Your task to perform on an android device: toggle notifications settings in the gmail app Image 0: 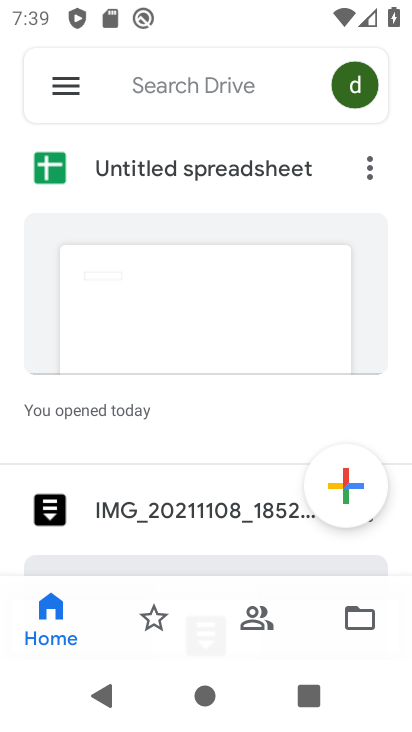
Step 0: press home button
Your task to perform on an android device: toggle notifications settings in the gmail app Image 1: 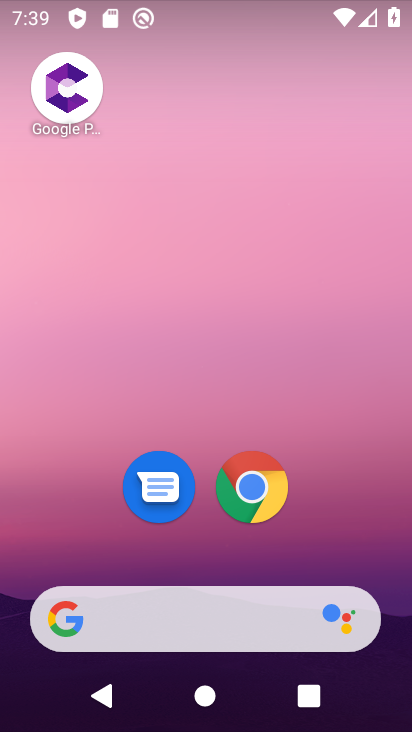
Step 1: drag from (319, 548) to (330, 278)
Your task to perform on an android device: toggle notifications settings in the gmail app Image 2: 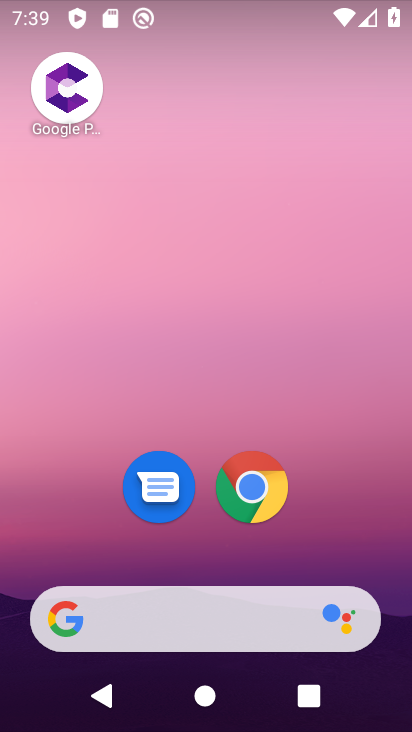
Step 2: drag from (281, 582) to (276, 238)
Your task to perform on an android device: toggle notifications settings in the gmail app Image 3: 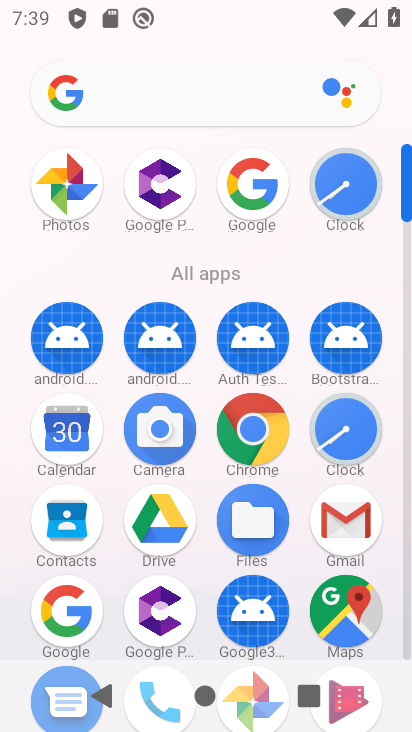
Step 3: drag from (210, 609) to (209, 278)
Your task to perform on an android device: toggle notifications settings in the gmail app Image 4: 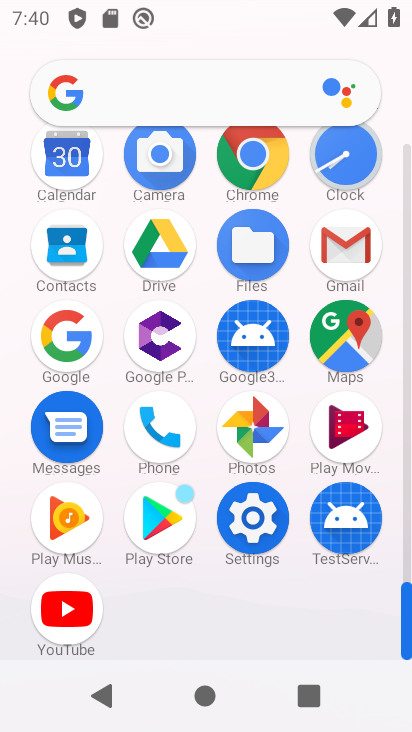
Step 4: click (261, 512)
Your task to perform on an android device: toggle notifications settings in the gmail app Image 5: 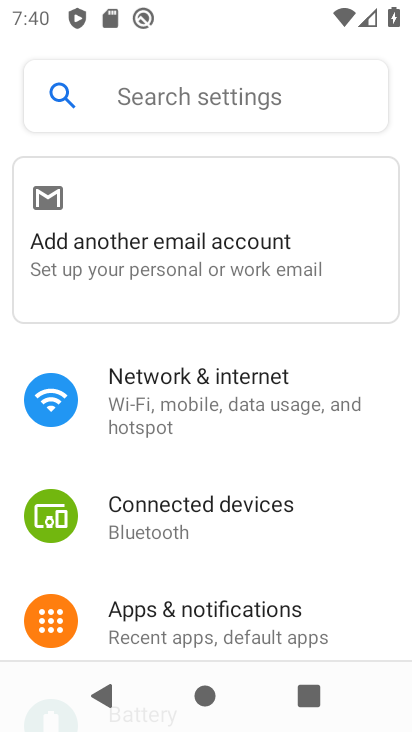
Step 5: press home button
Your task to perform on an android device: toggle notifications settings in the gmail app Image 6: 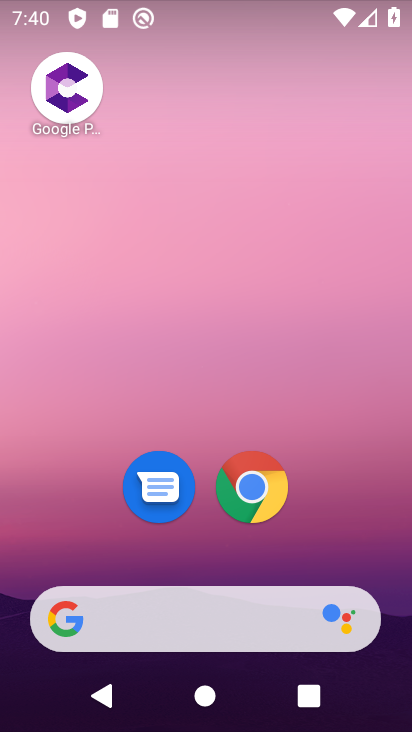
Step 6: drag from (264, 570) to (258, 244)
Your task to perform on an android device: toggle notifications settings in the gmail app Image 7: 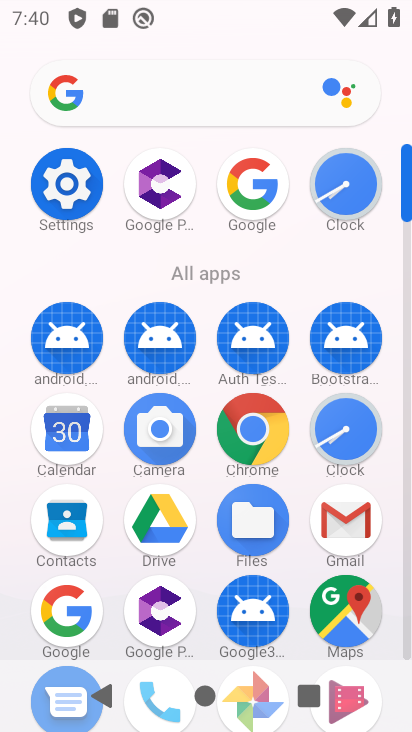
Step 7: click (347, 509)
Your task to perform on an android device: toggle notifications settings in the gmail app Image 8: 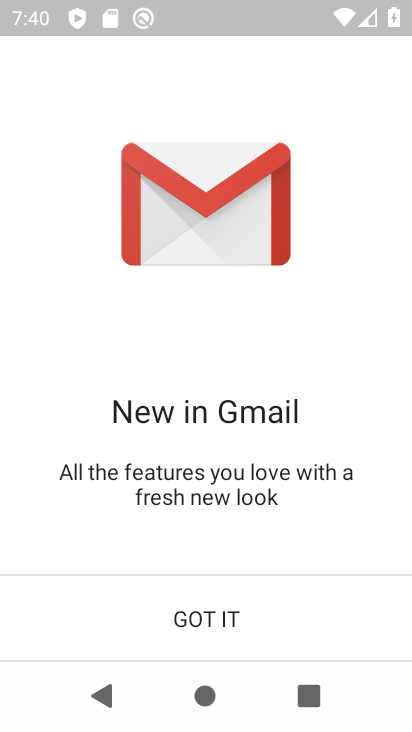
Step 8: click (231, 613)
Your task to perform on an android device: toggle notifications settings in the gmail app Image 9: 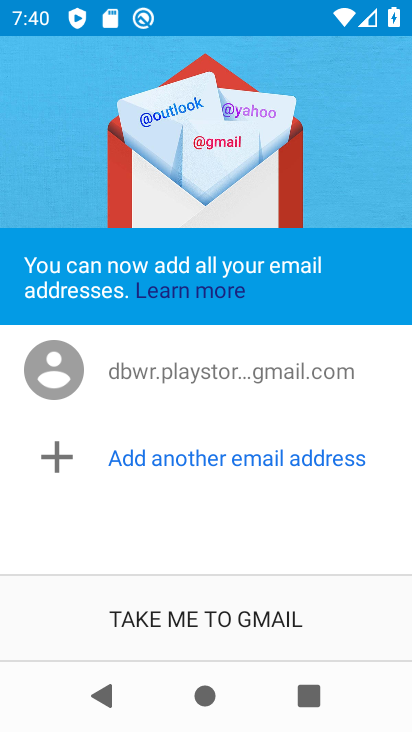
Step 9: click (231, 613)
Your task to perform on an android device: toggle notifications settings in the gmail app Image 10: 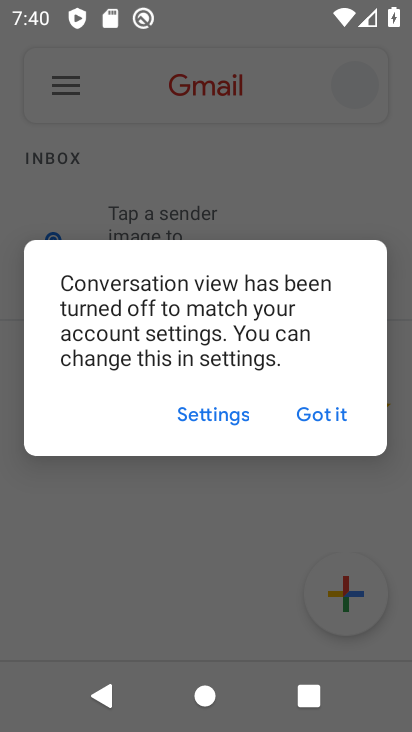
Step 10: click (314, 420)
Your task to perform on an android device: toggle notifications settings in the gmail app Image 11: 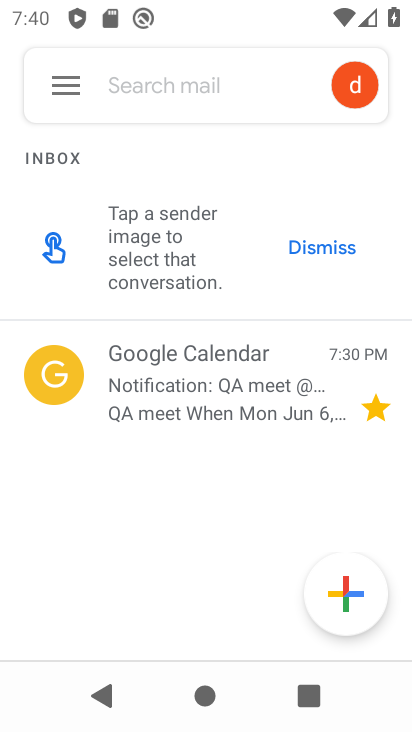
Step 11: click (59, 94)
Your task to perform on an android device: toggle notifications settings in the gmail app Image 12: 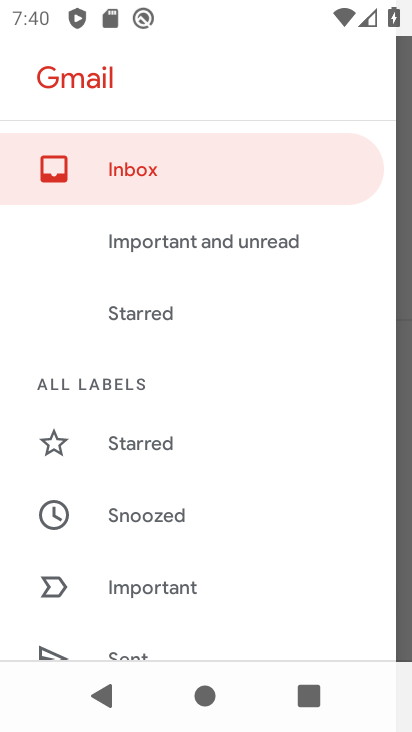
Step 12: drag from (162, 539) to (214, 295)
Your task to perform on an android device: toggle notifications settings in the gmail app Image 13: 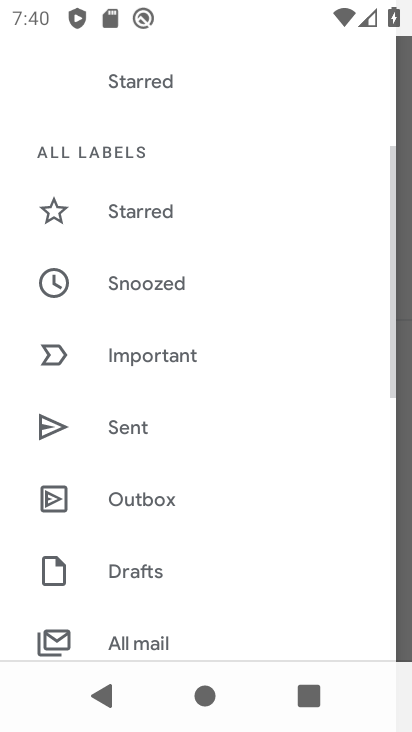
Step 13: drag from (199, 594) to (275, 214)
Your task to perform on an android device: toggle notifications settings in the gmail app Image 14: 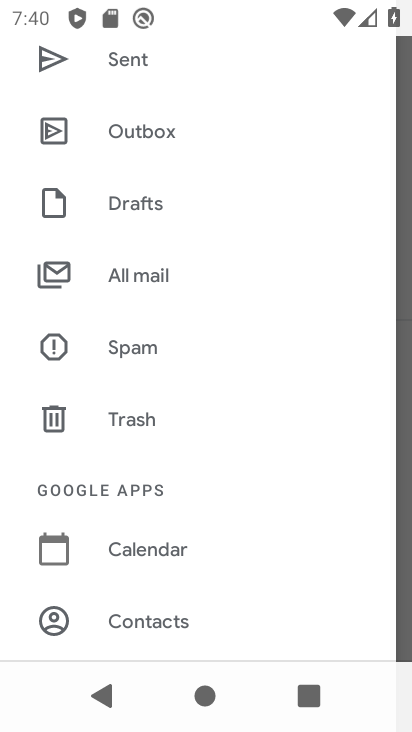
Step 14: drag from (181, 530) to (205, 163)
Your task to perform on an android device: toggle notifications settings in the gmail app Image 15: 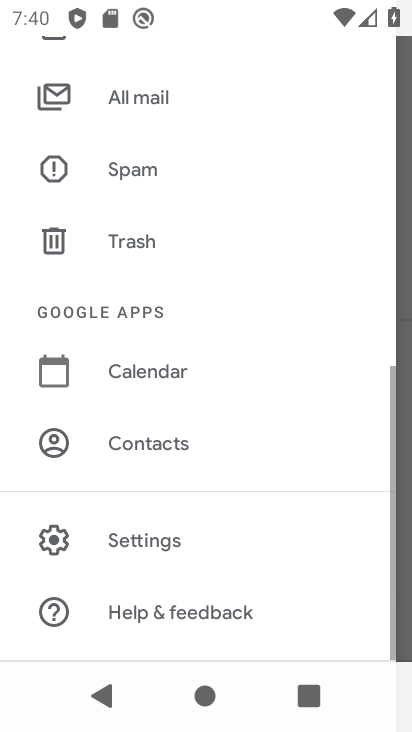
Step 15: click (149, 539)
Your task to perform on an android device: toggle notifications settings in the gmail app Image 16: 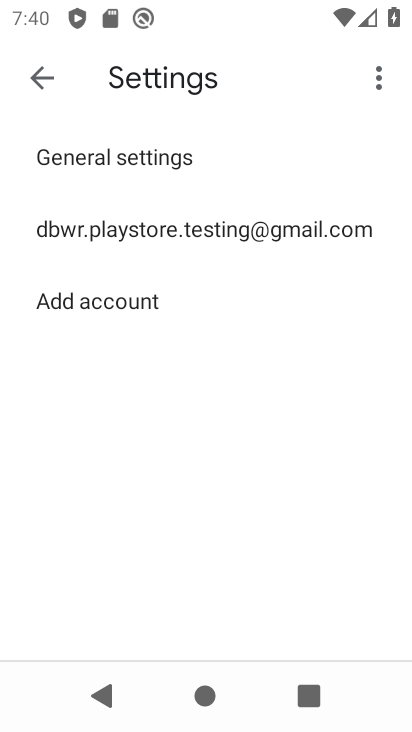
Step 16: click (109, 225)
Your task to perform on an android device: toggle notifications settings in the gmail app Image 17: 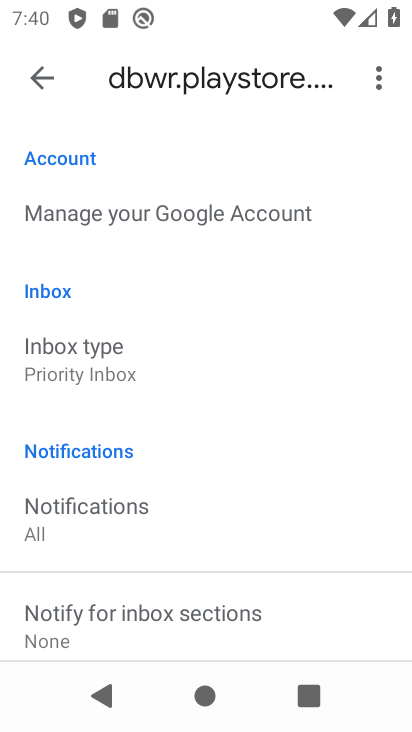
Step 17: click (149, 517)
Your task to perform on an android device: toggle notifications settings in the gmail app Image 18: 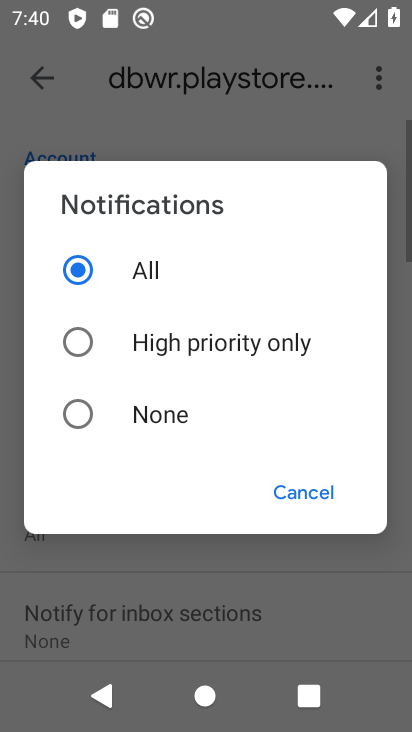
Step 18: click (116, 395)
Your task to perform on an android device: toggle notifications settings in the gmail app Image 19: 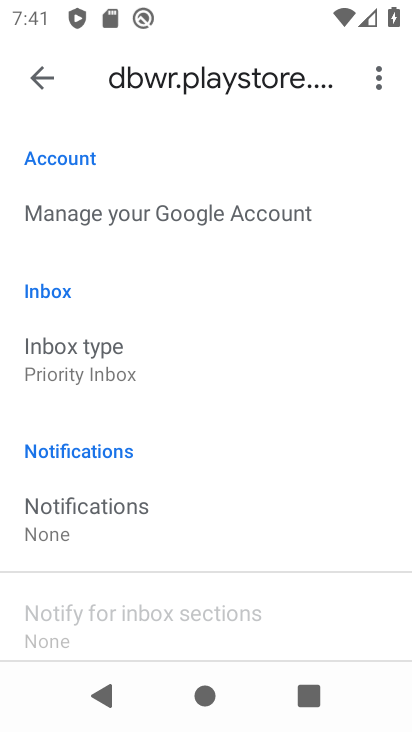
Step 19: task complete